Your task to perform on an android device: Open Reddit.com Image 0: 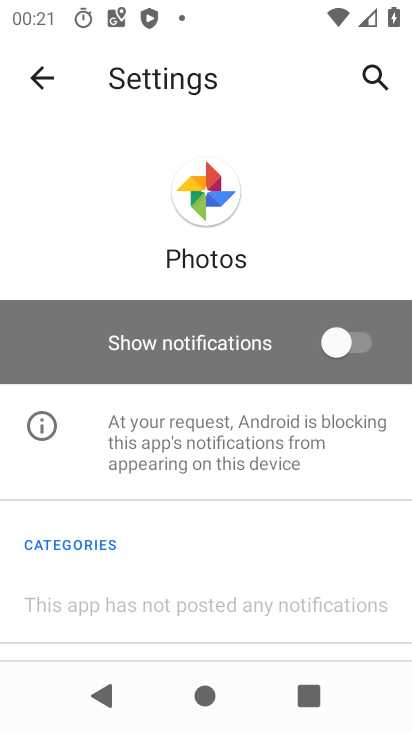
Step 0: press home button
Your task to perform on an android device: Open Reddit.com Image 1: 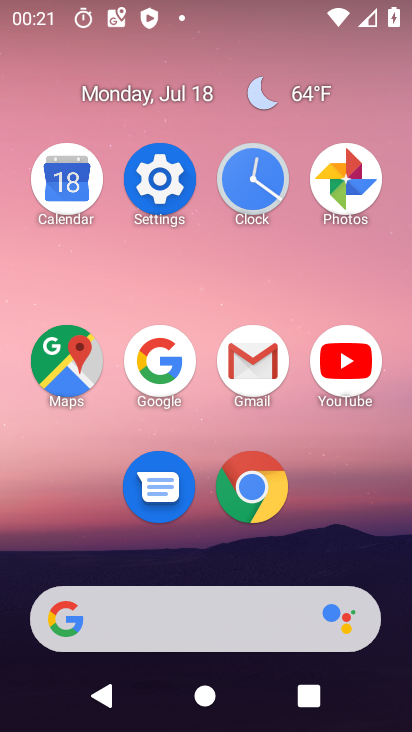
Step 1: click (277, 505)
Your task to perform on an android device: Open Reddit.com Image 2: 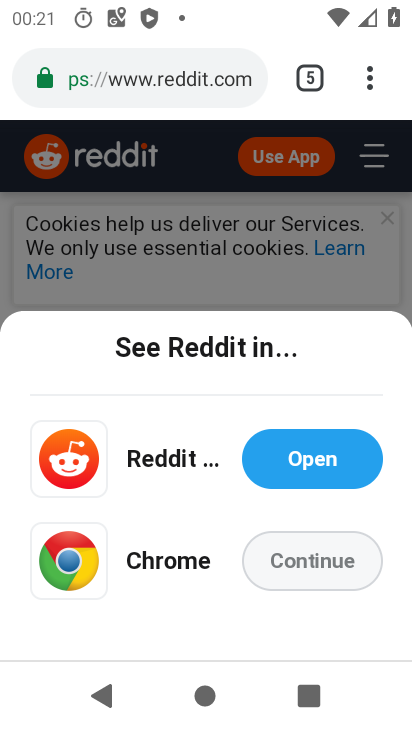
Step 2: click (113, 136)
Your task to perform on an android device: Open Reddit.com Image 3: 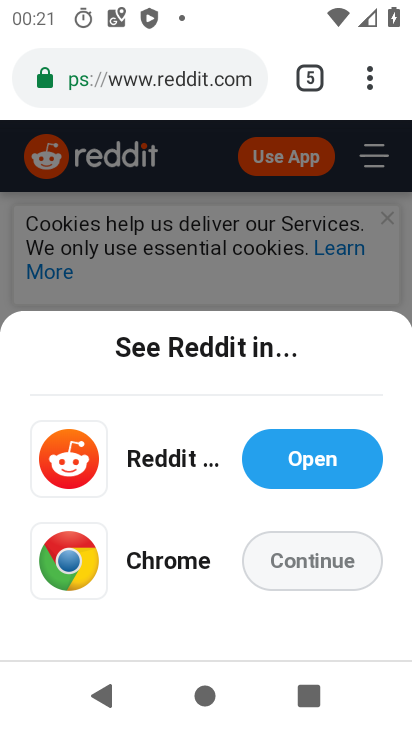
Step 3: task complete